Your task to perform on an android device: open device folders in google photos Image 0: 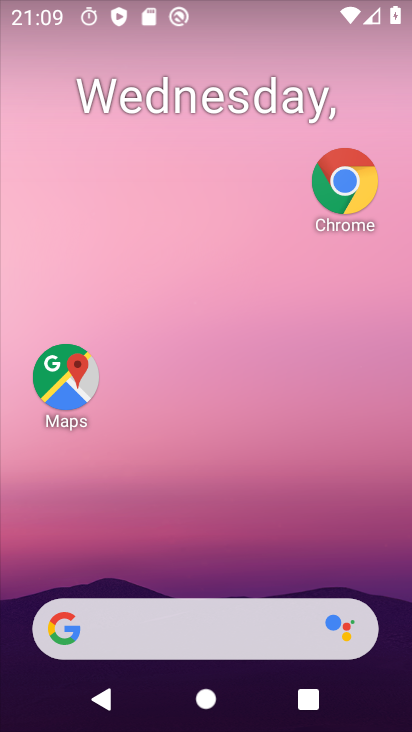
Step 0: drag from (251, 668) to (294, 282)
Your task to perform on an android device: open device folders in google photos Image 1: 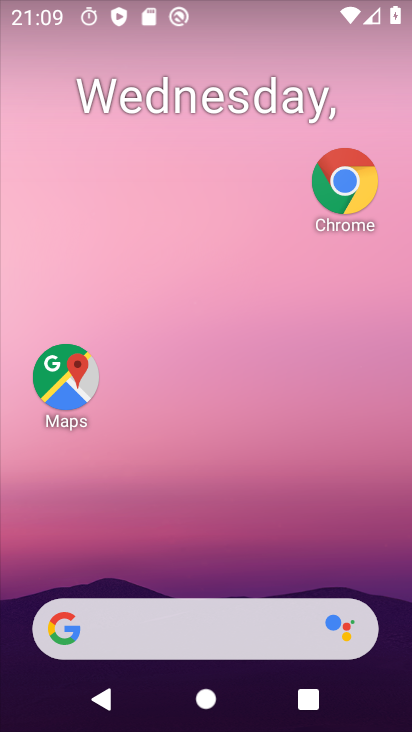
Step 1: drag from (203, 675) to (233, 329)
Your task to perform on an android device: open device folders in google photos Image 2: 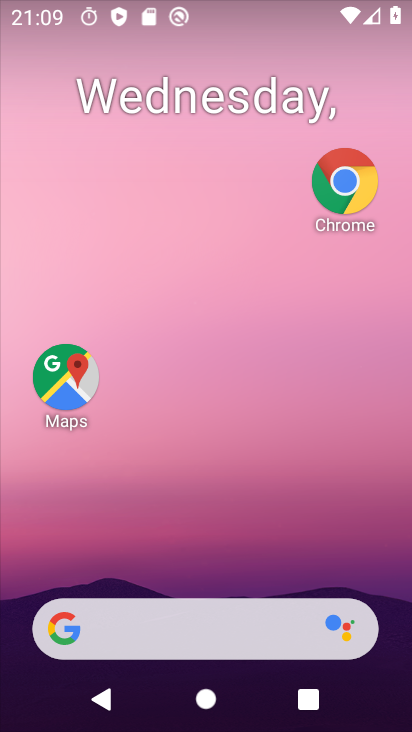
Step 2: drag from (260, 678) to (231, 231)
Your task to perform on an android device: open device folders in google photos Image 3: 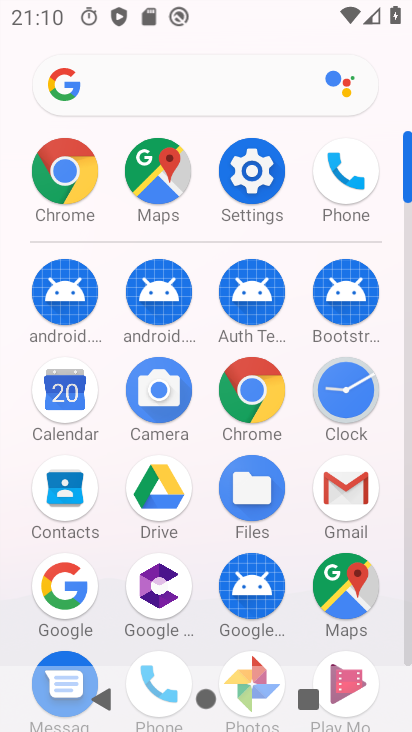
Step 3: click (245, 653)
Your task to perform on an android device: open device folders in google photos Image 4: 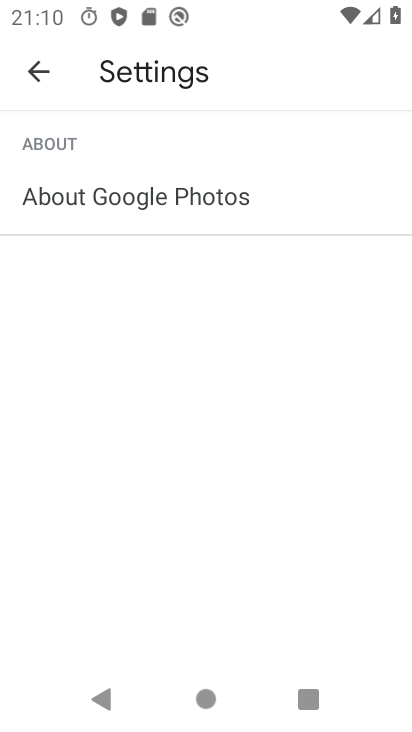
Step 4: click (31, 79)
Your task to perform on an android device: open device folders in google photos Image 5: 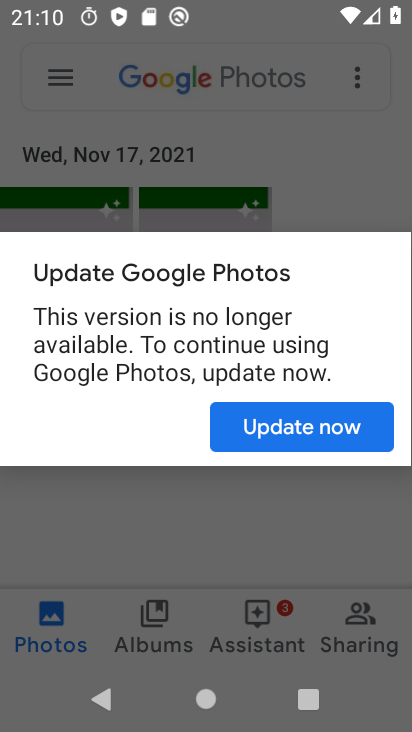
Step 5: click (266, 414)
Your task to perform on an android device: open device folders in google photos Image 6: 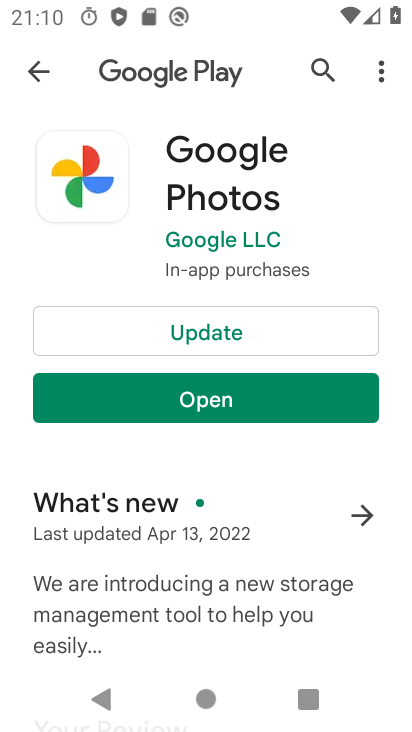
Step 6: click (251, 415)
Your task to perform on an android device: open device folders in google photos Image 7: 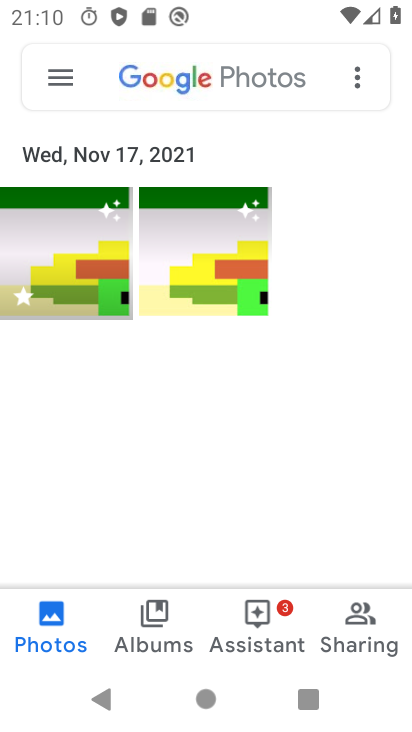
Step 7: click (70, 84)
Your task to perform on an android device: open device folders in google photos Image 8: 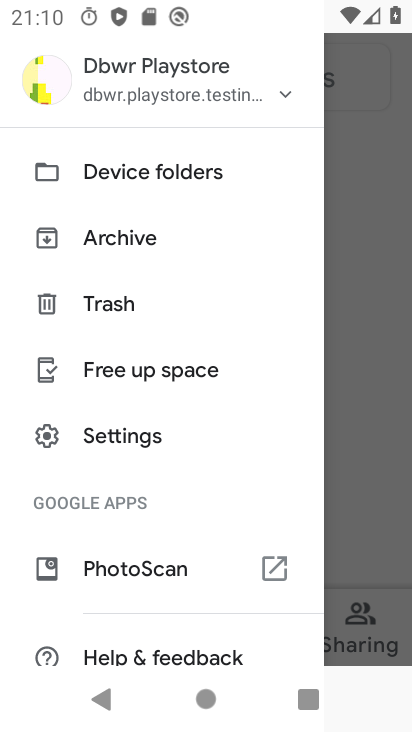
Step 8: click (127, 162)
Your task to perform on an android device: open device folders in google photos Image 9: 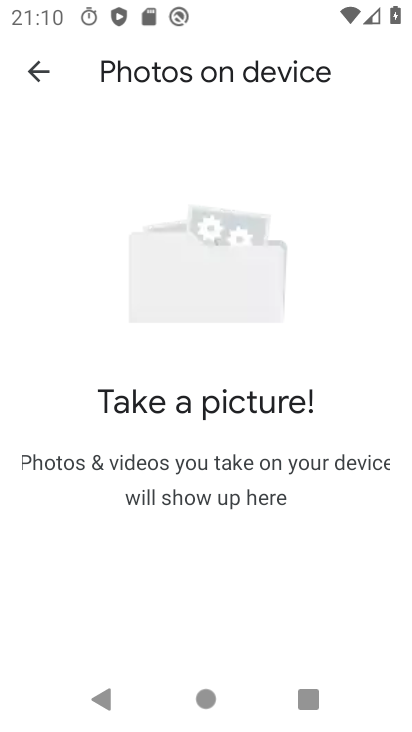
Step 9: task complete